Your task to perform on an android device: add a contact Image 0: 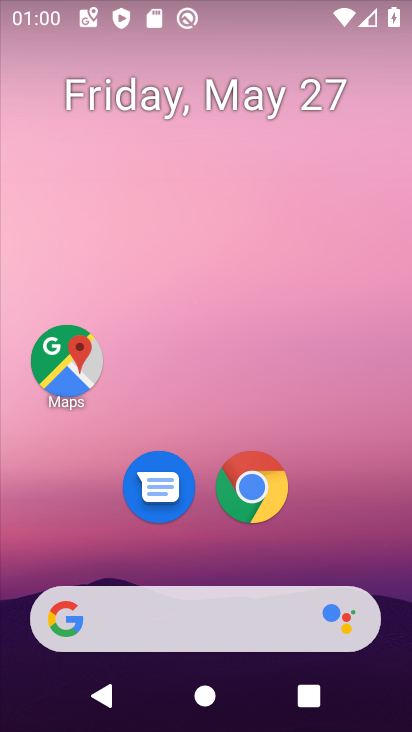
Step 0: drag from (162, 731) to (212, 64)
Your task to perform on an android device: add a contact Image 1: 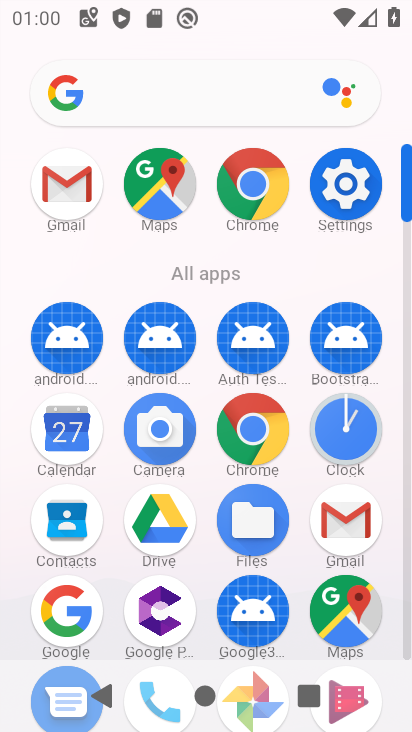
Step 1: click (69, 528)
Your task to perform on an android device: add a contact Image 2: 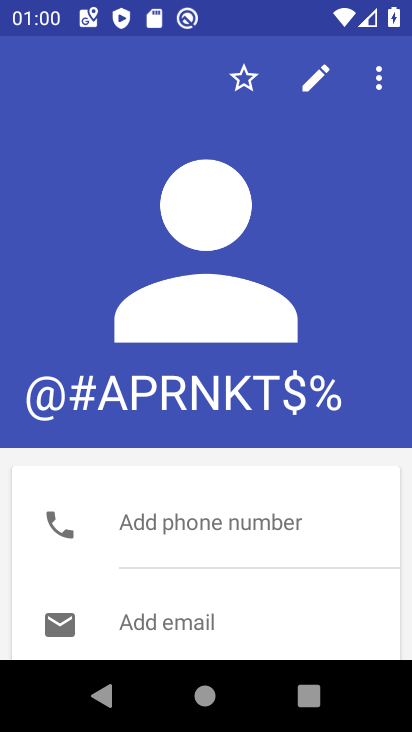
Step 2: press back button
Your task to perform on an android device: add a contact Image 3: 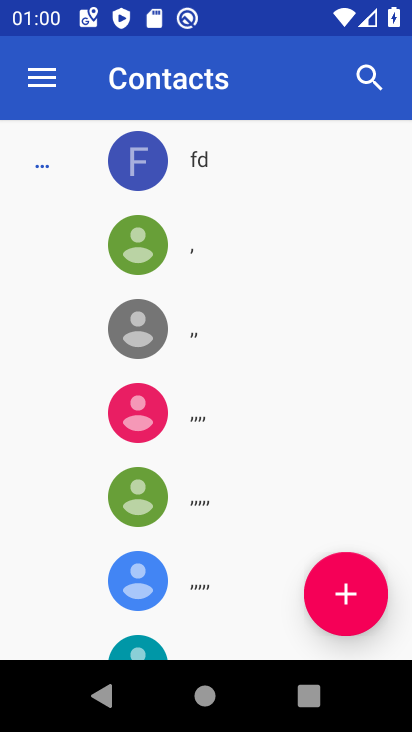
Step 3: click (346, 597)
Your task to perform on an android device: add a contact Image 4: 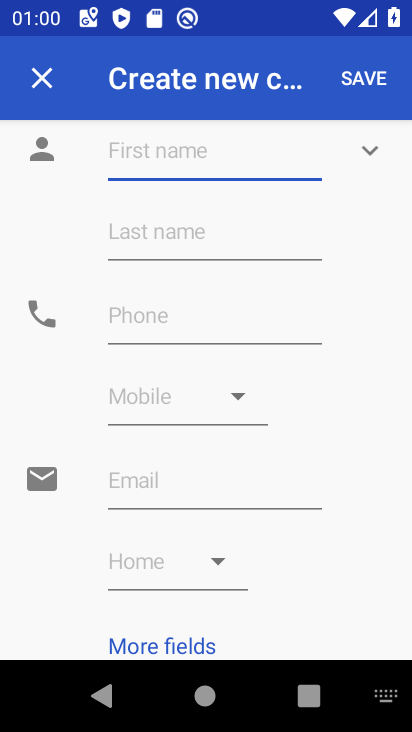
Step 4: type "lala"
Your task to perform on an android device: add a contact Image 5: 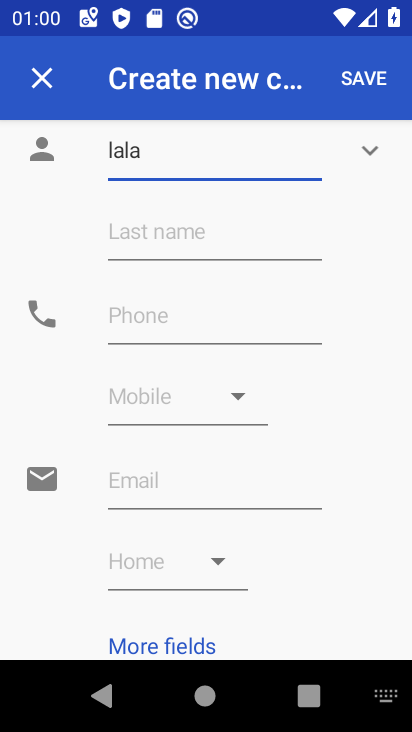
Step 5: click (179, 322)
Your task to perform on an android device: add a contact Image 6: 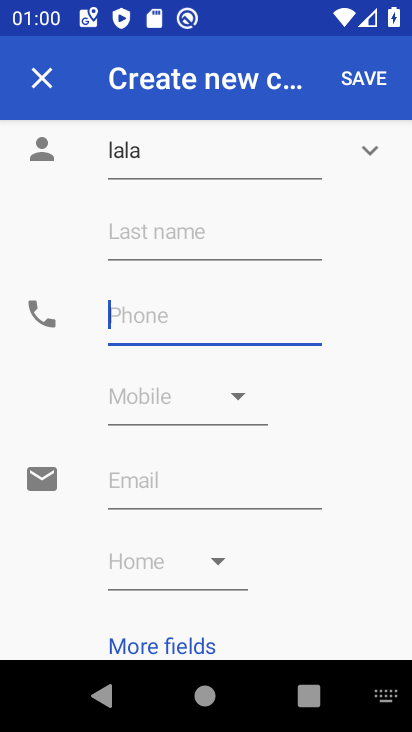
Step 6: type "9872635419"
Your task to perform on an android device: add a contact Image 7: 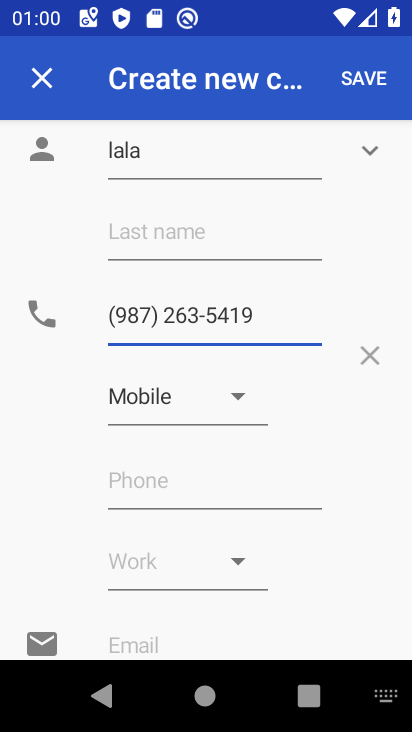
Step 7: drag from (365, 475) to (375, 199)
Your task to perform on an android device: add a contact Image 8: 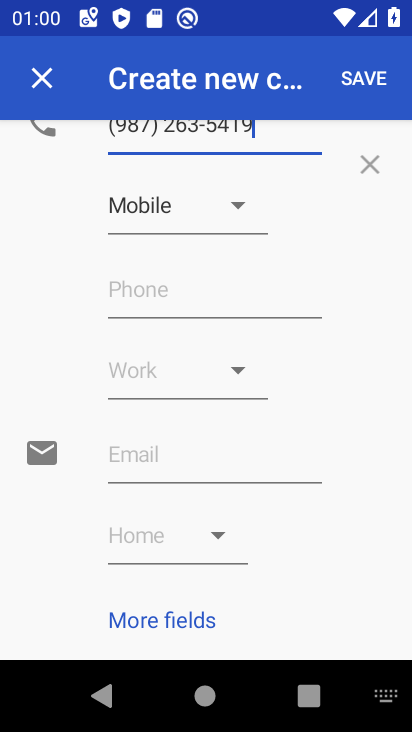
Step 8: click (348, 72)
Your task to perform on an android device: add a contact Image 9: 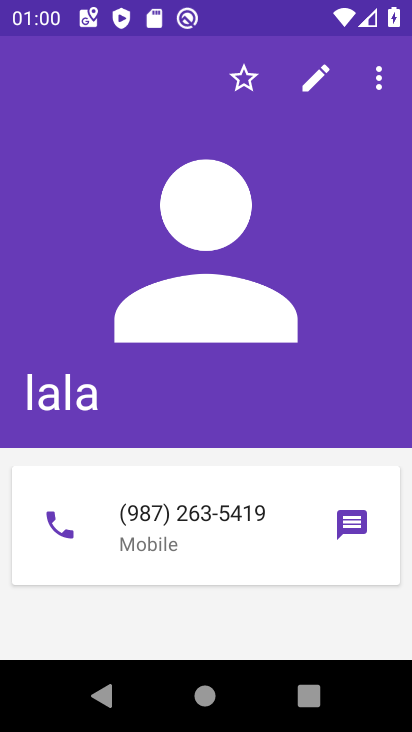
Step 9: task complete